Your task to perform on an android device: Open the calendar app, open the side menu, and click the "Day" option Image 0: 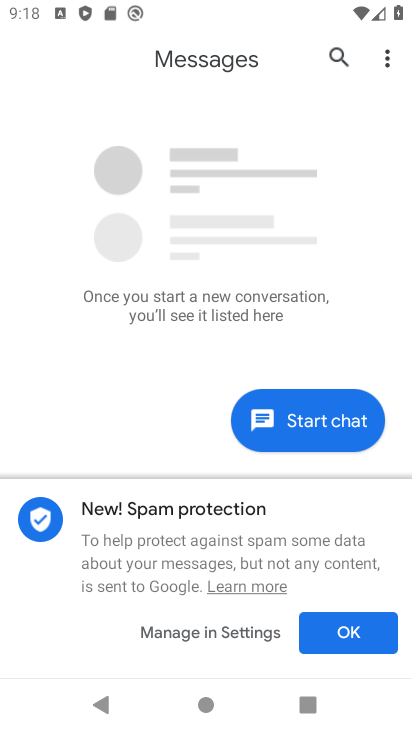
Step 0: press home button
Your task to perform on an android device: Open the calendar app, open the side menu, and click the "Day" option Image 1: 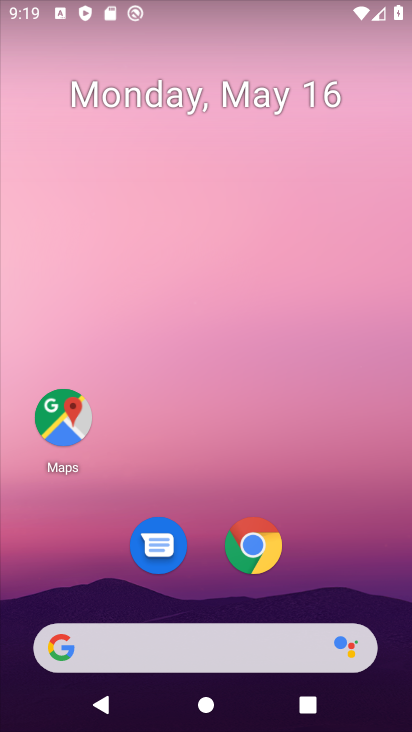
Step 1: click (178, 102)
Your task to perform on an android device: Open the calendar app, open the side menu, and click the "Day" option Image 2: 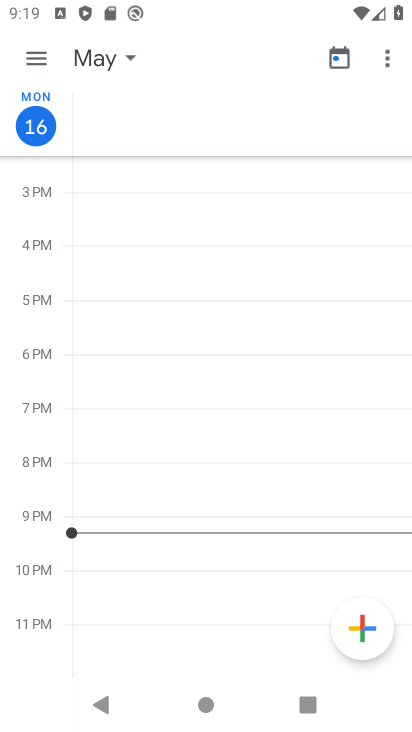
Step 2: click (44, 53)
Your task to perform on an android device: Open the calendar app, open the side menu, and click the "Day" option Image 3: 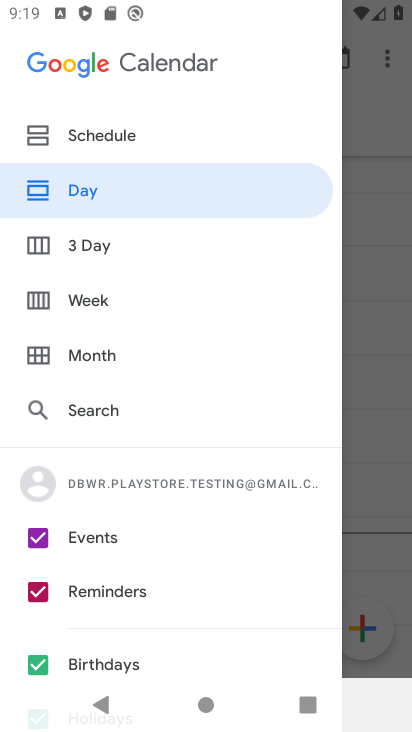
Step 3: task complete